Your task to perform on an android device: see creations saved in the google photos Image 0: 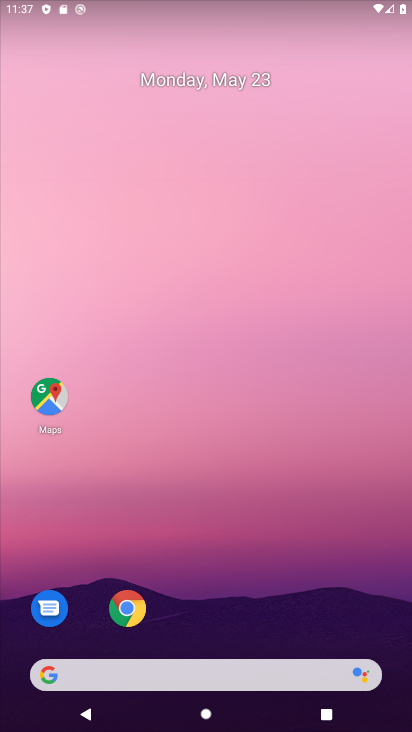
Step 0: drag from (207, 641) to (203, 0)
Your task to perform on an android device: see creations saved in the google photos Image 1: 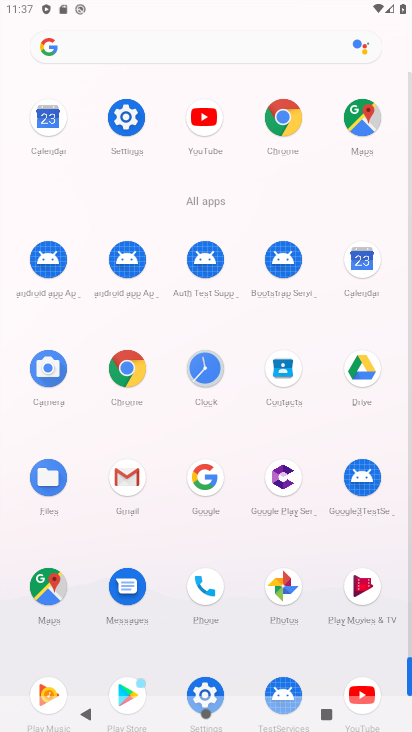
Step 1: click (282, 581)
Your task to perform on an android device: see creations saved in the google photos Image 2: 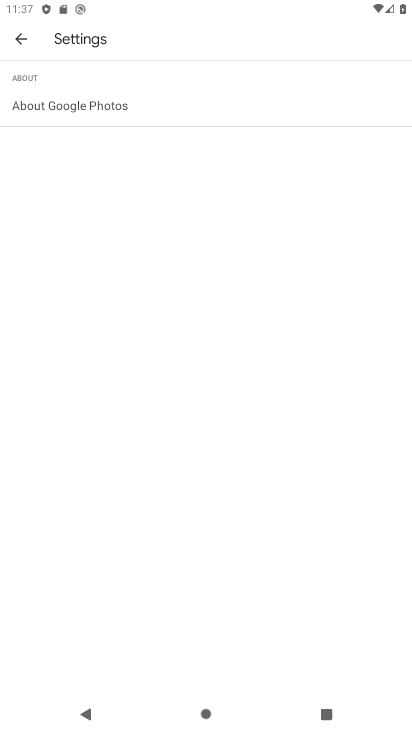
Step 2: click (25, 39)
Your task to perform on an android device: see creations saved in the google photos Image 3: 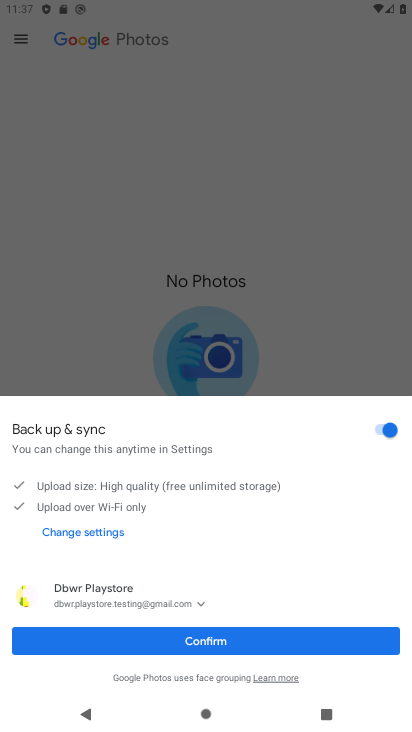
Step 3: click (229, 638)
Your task to perform on an android device: see creations saved in the google photos Image 4: 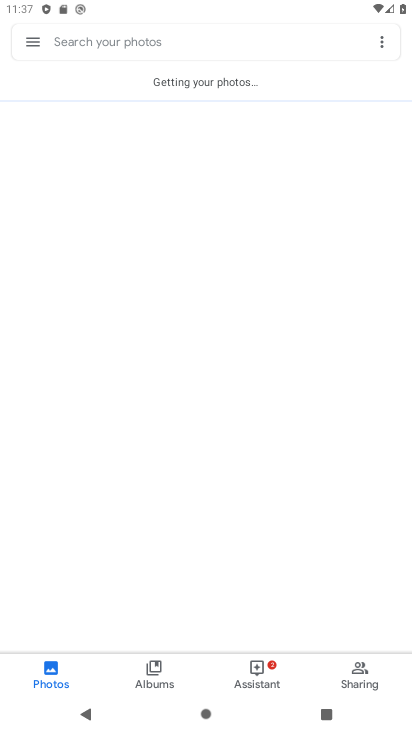
Step 4: click (125, 37)
Your task to perform on an android device: see creations saved in the google photos Image 5: 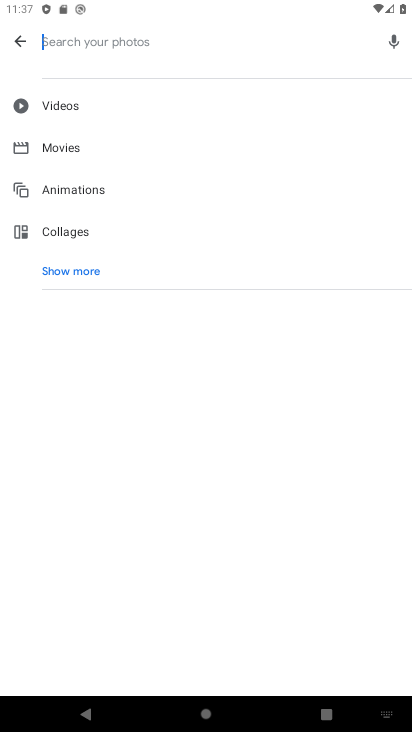
Step 5: click (80, 265)
Your task to perform on an android device: see creations saved in the google photos Image 6: 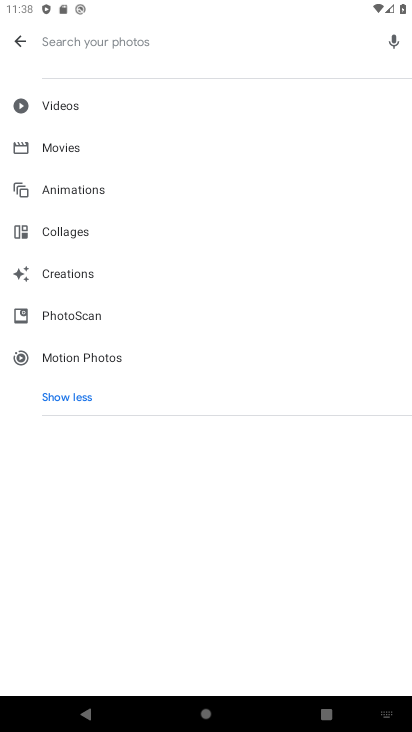
Step 6: click (97, 273)
Your task to perform on an android device: see creations saved in the google photos Image 7: 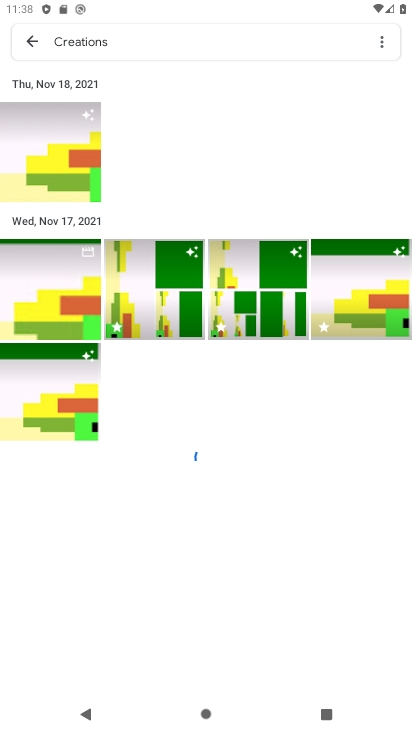
Step 7: task complete